Your task to perform on an android device: turn pop-ups off in chrome Image 0: 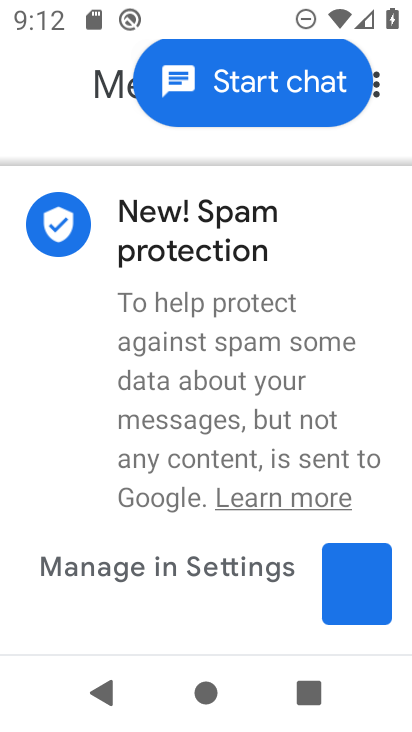
Step 0: press home button
Your task to perform on an android device: turn pop-ups off in chrome Image 1: 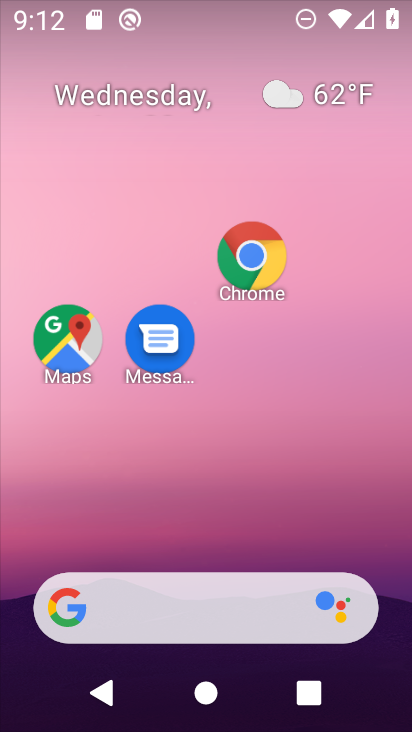
Step 1: click (254, 258)
Your task to perform on an android device: turn pop-ups off in chrome Image 2: 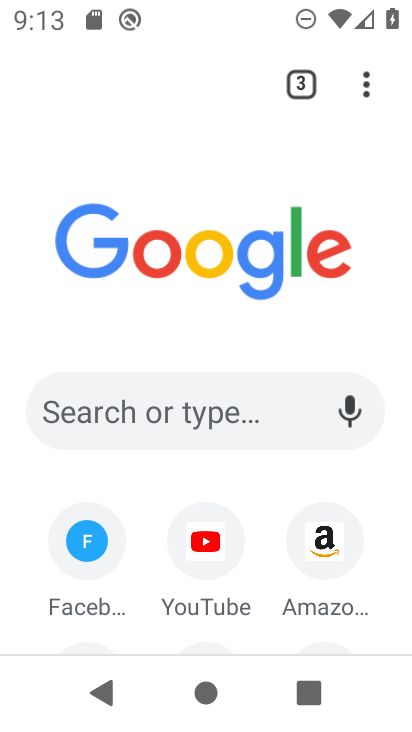
Step 2: click (360, 86)
Your task to perform on an android device: turn pop-ups off in chrome Image 3: 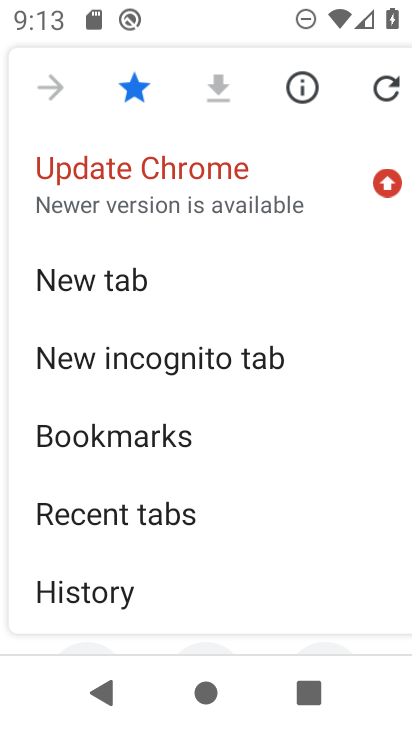
Step 3: drag from (241, 531) to (228, 4)
Your task to perform on an android device: turn pop-ups off in chrome Image 4: 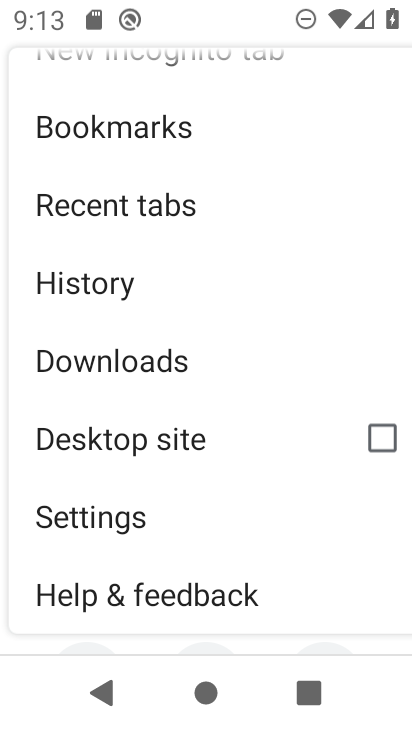
Step 4: click (99, 529)
Your task to perform on an android device: turn pop-ups off in chrome Image 5: 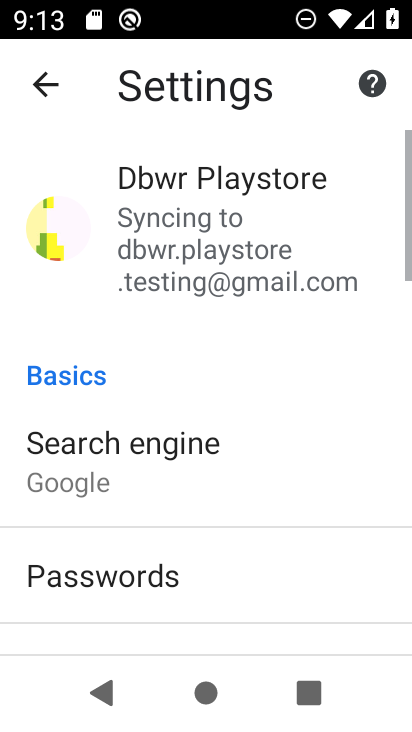
Step 5: drag from (260, 522) to (241, 24)
Your task to perform on an android device: turn pop-ups off in chrome Image 6: 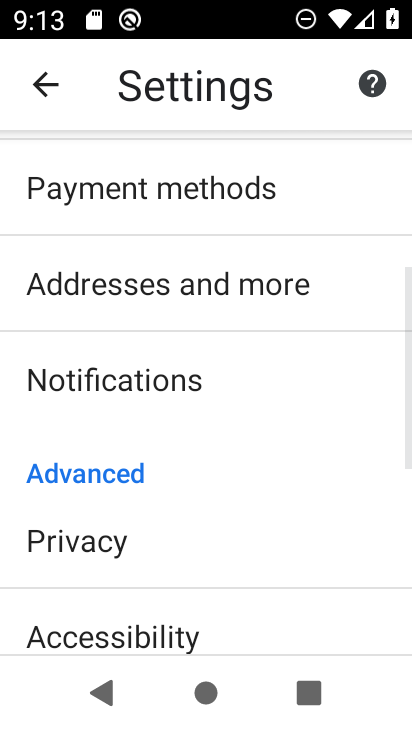
Step 6: drag from (225, 544) to (201, 162)
Your task to perform on an android device: turn pop-ups off in chrome Image 7: 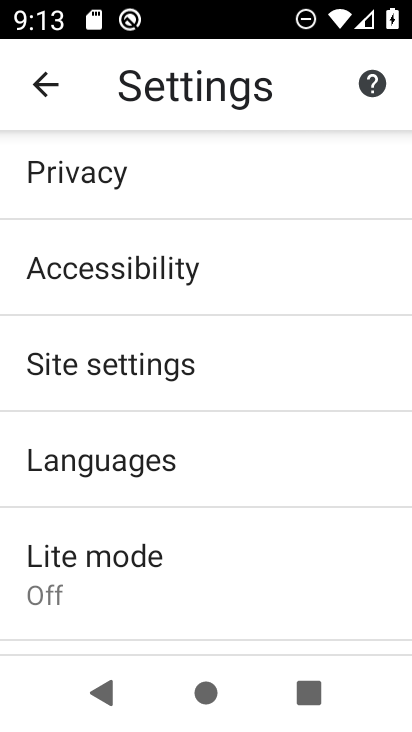
Step 7: drag from (223, 483) to (192, 305)
Your task to perform on an android device: turn pop-ups off in chrome Image 8: 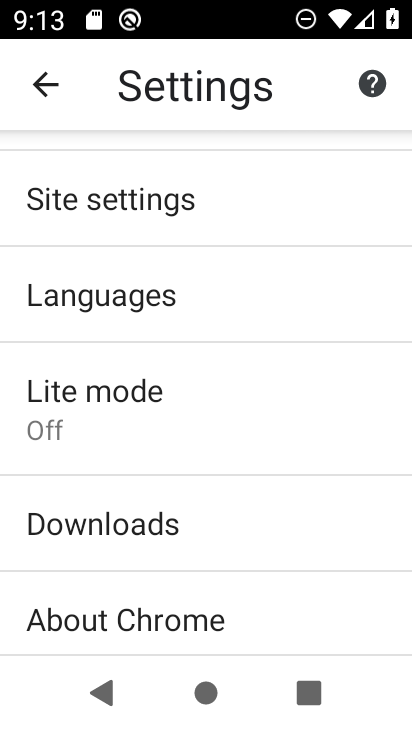
Step 8: click (72, 209)
Your task to perform on an android device: turn pop-ups off in chrome Image 9: 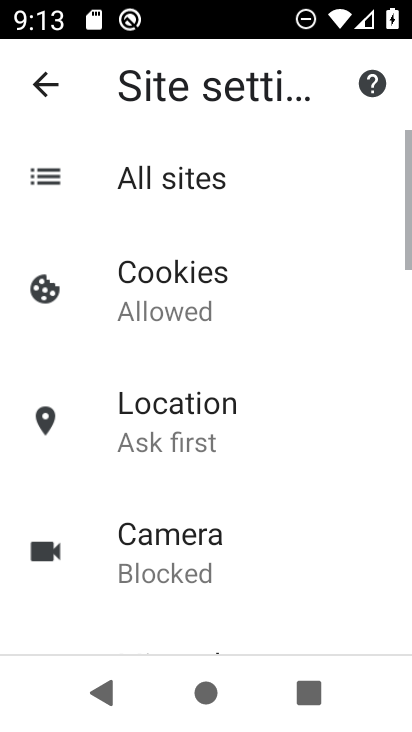
Step 9: drag from (259, 467) to (256, 129)
Your task to perform on an android device: turn pop-ups off in chrome Image 10: 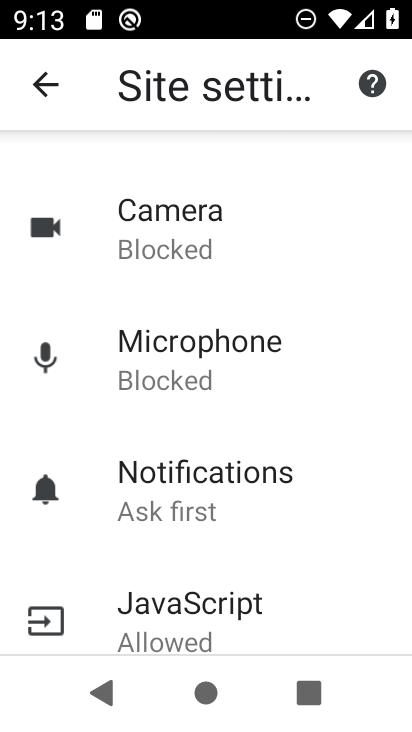
Step 10: drag from (180, 607) to (170, 257)
Your task to perform on an android device: turn pop-ups off in chrome Image 11: 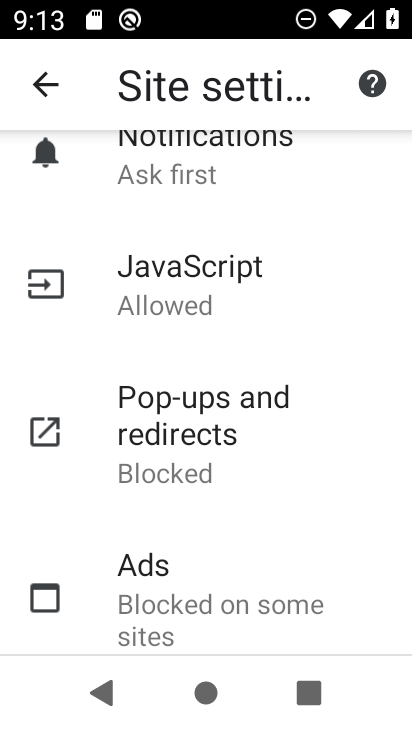
Step 11: click (184, 426)
Your task to perform on an android device: turn pop-ups off in chrome Image 12: 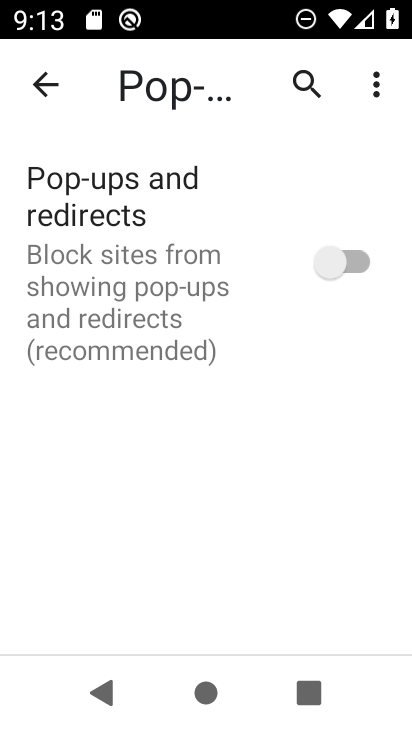
Step 12: task complete